Your task to perform on an android device: Open settings on Google Maps Image 0: 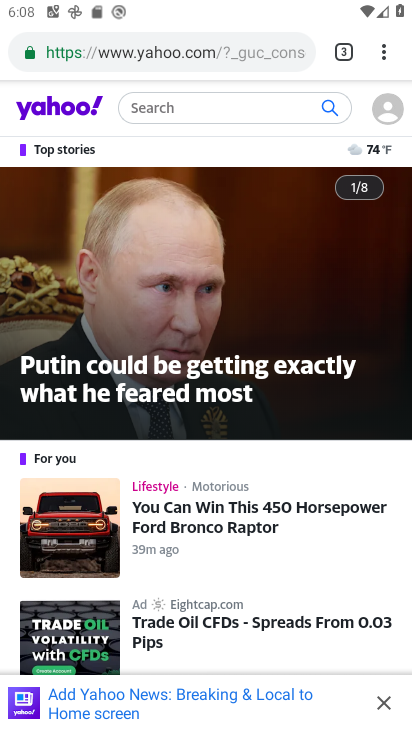
Step 0: press home button
Your task to perform on an android device: Open settings on Google Maps Image 1: 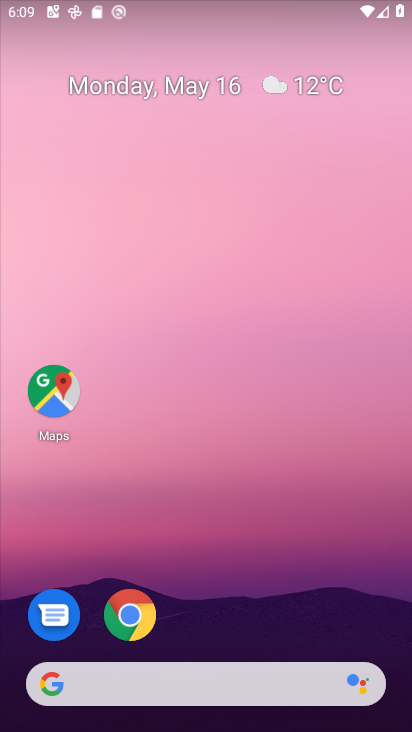
Step 1: drag from (211, 617) to (268, 159)
Your task to perform on an android device: Open settings on Google Maps Image 2: 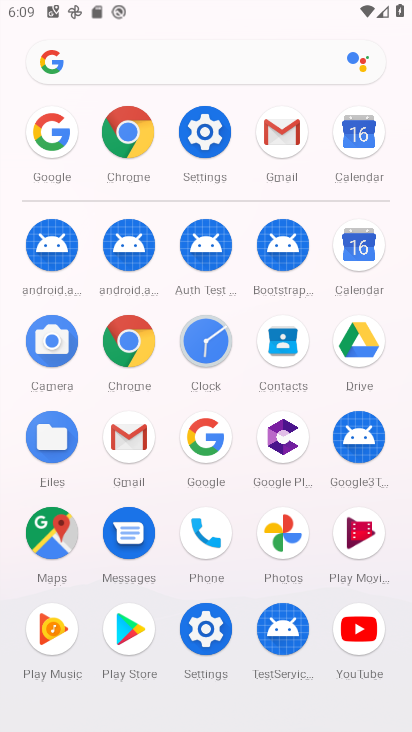
Step 2: click (54, 538)
Your task to perform on an android device: Open settings on Google Maps Image 3: 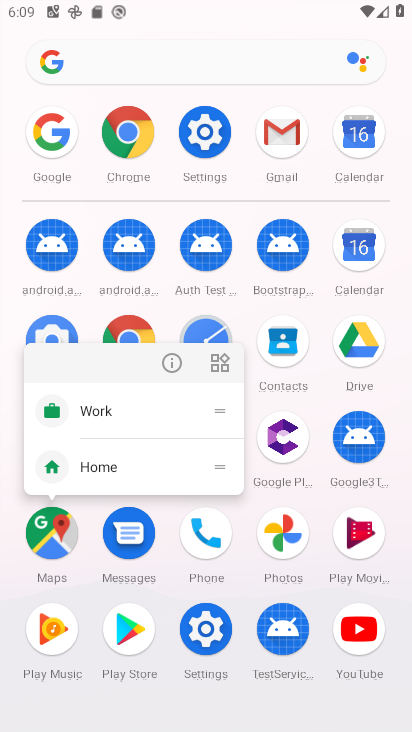
Step 3: click (279, 563)
Your task to perform on an android device: Open settings on Google Maps Image 4: 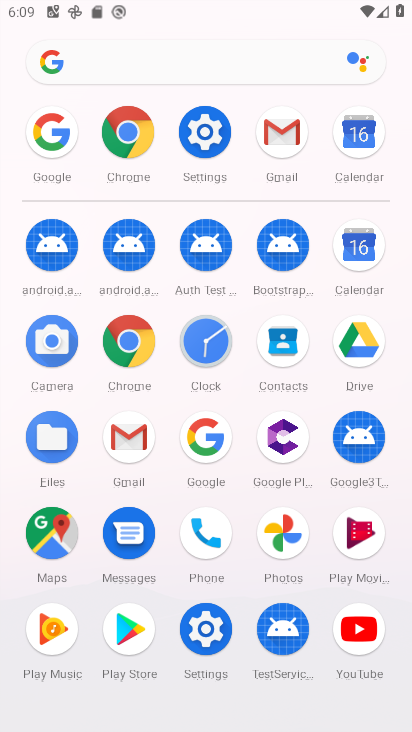
Step 4: click (282, 532)
Your task to perform on an android device: Open settings on Google Maps Image 5: 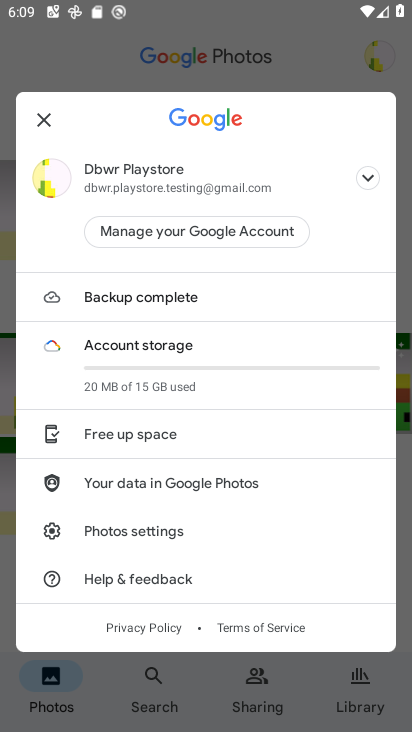
Step 5: click (135, 537)
Your task to perform on an android device: Open settings on Google Maps Image 6: 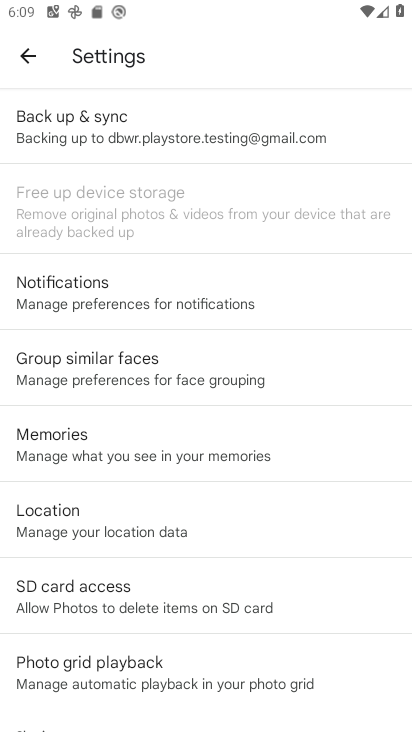
Step 6: task complete